Your task to perform on an android device: Open the play store Image 0: 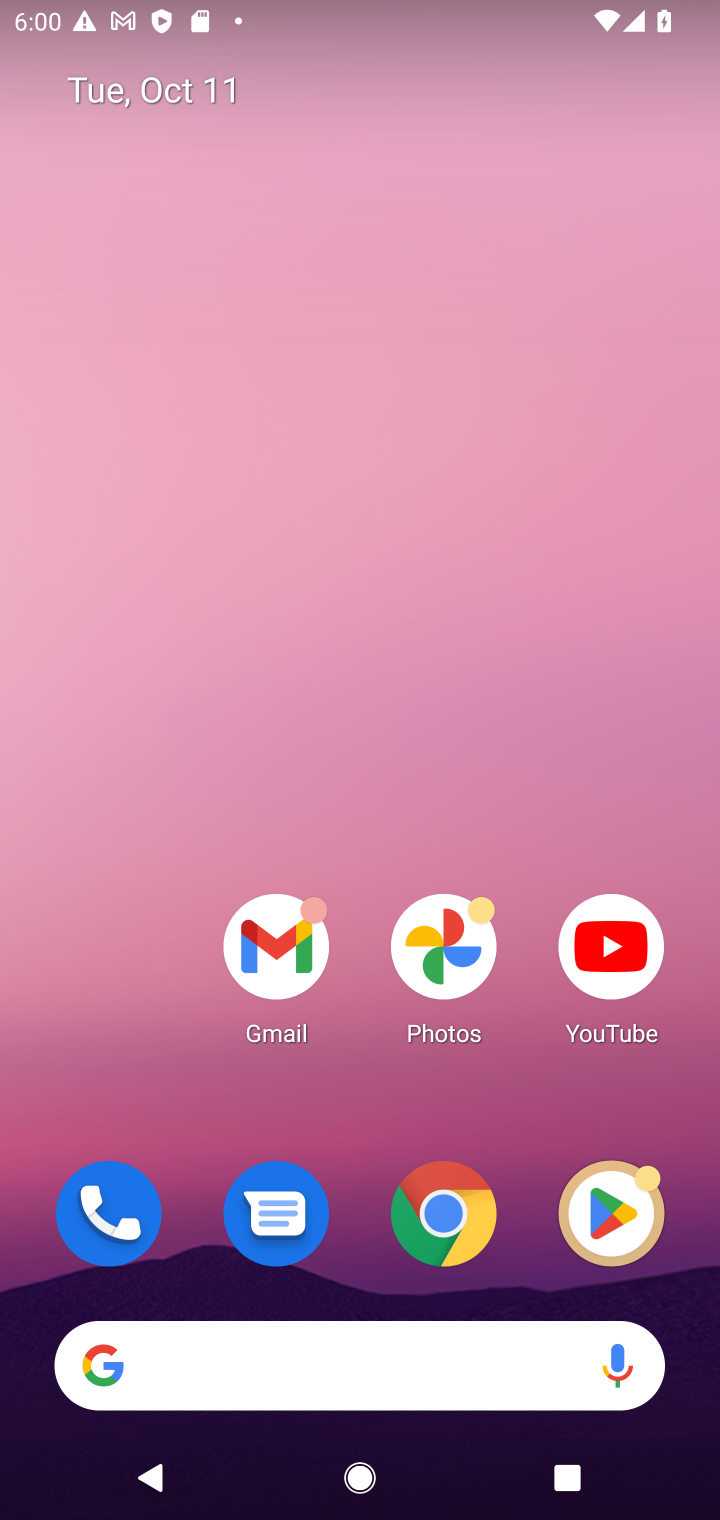
Step 0: drag from (389, 928) to (389, 261)
Your task to perform on an android device: Open the play store Image 1: 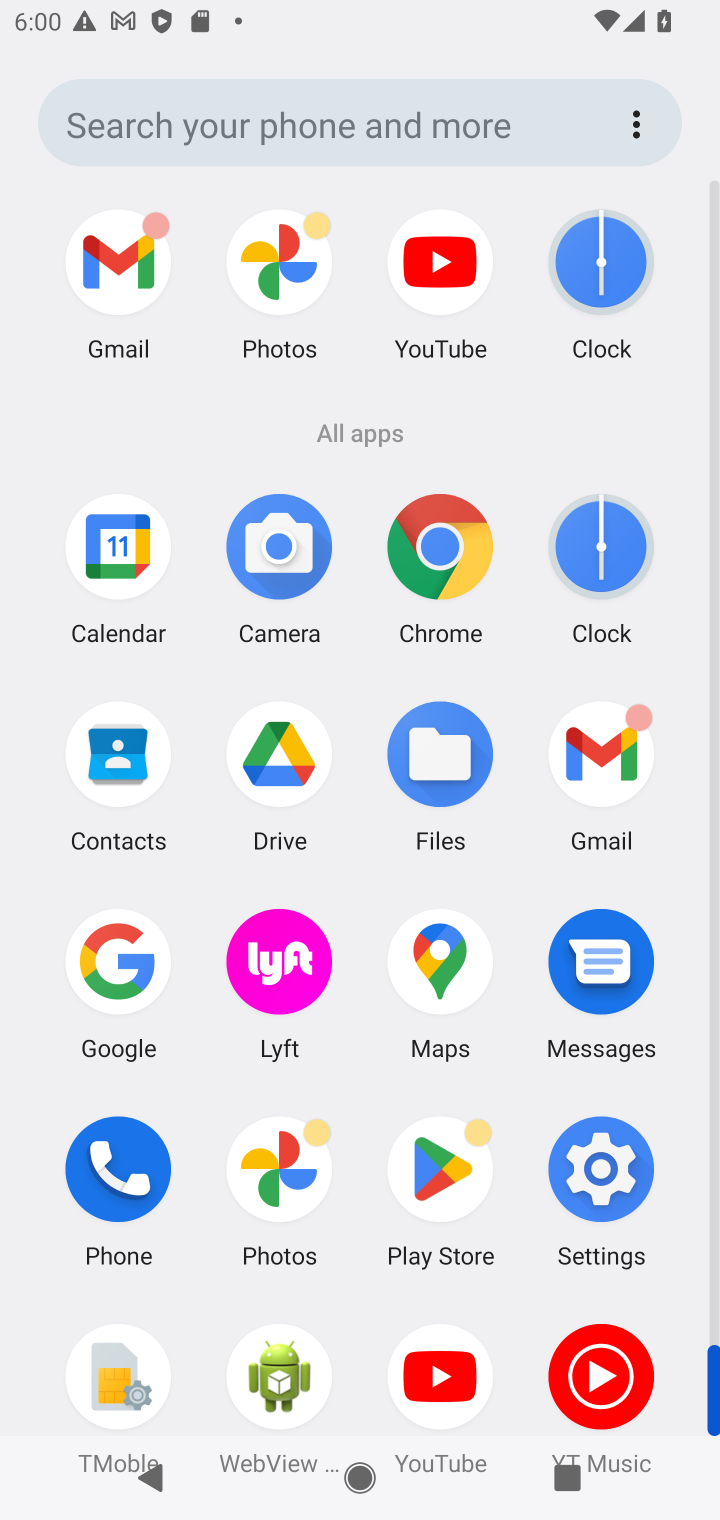
Step 1: click (446, 1157)
Your task to perform on an android device: Open the play store Image 2: 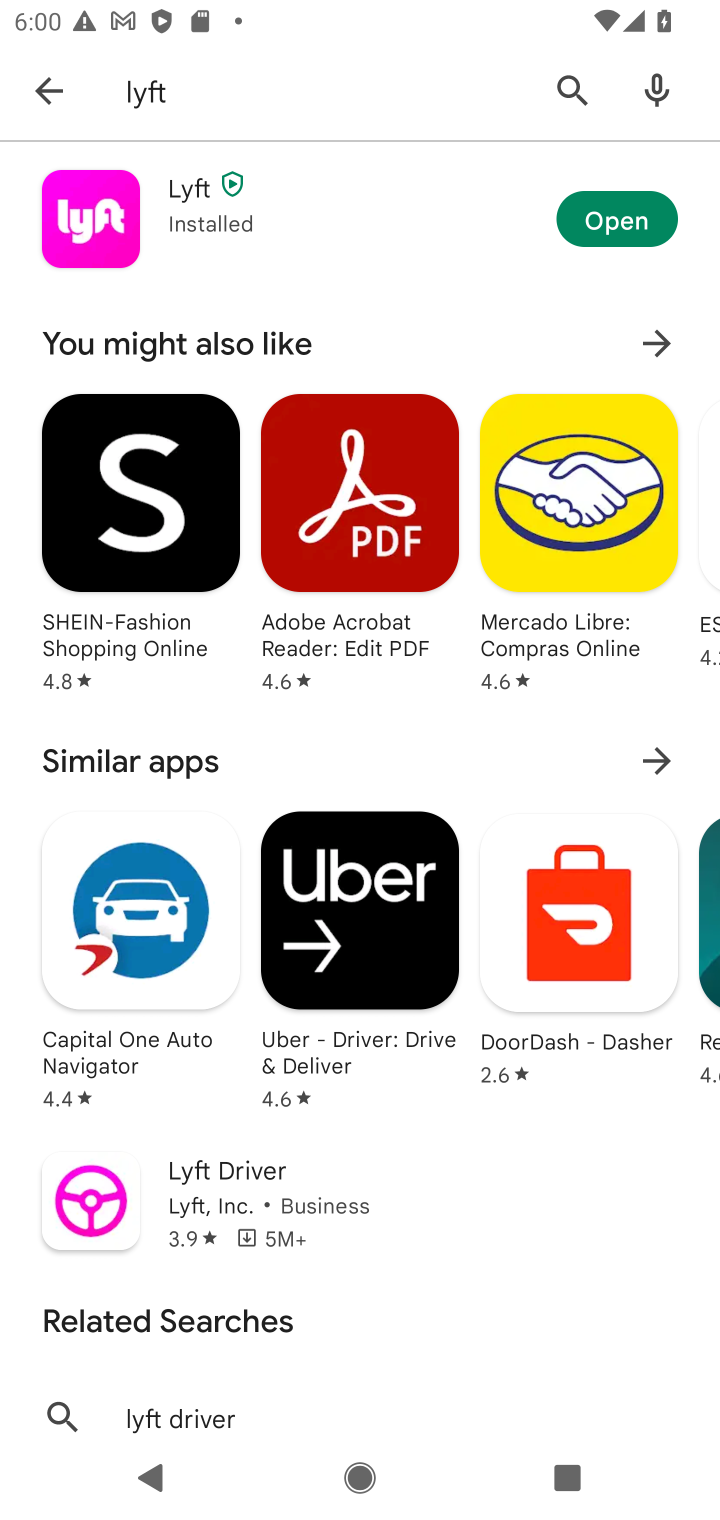
Step 2: task complete